Your task to perform on an android device: Search for Italian restaurants on Maps Image 0: 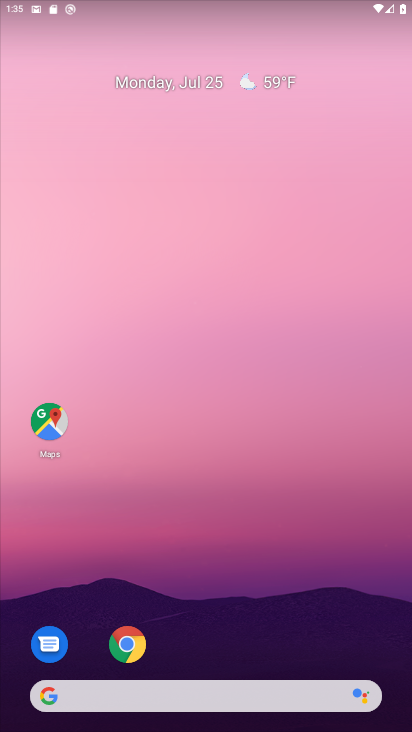
Step 0: click (46, 418)
Your task to perform on an android device: Search for Italian restaurants on Maps Image 1: 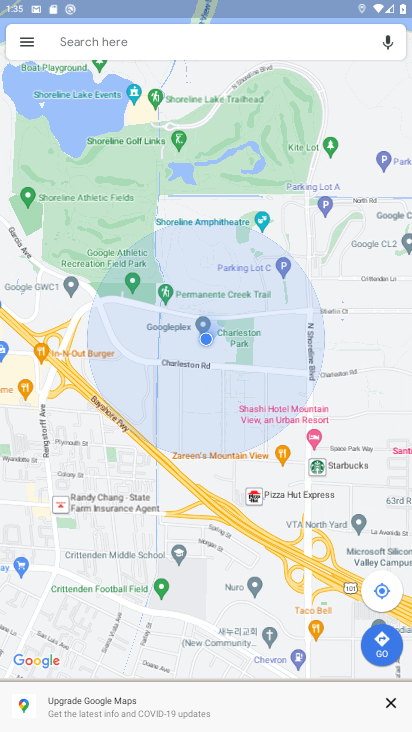
Step 1: click (128, 41)
Your task to perform on an android device: Search for Italian restaurants on Maps Image 2: 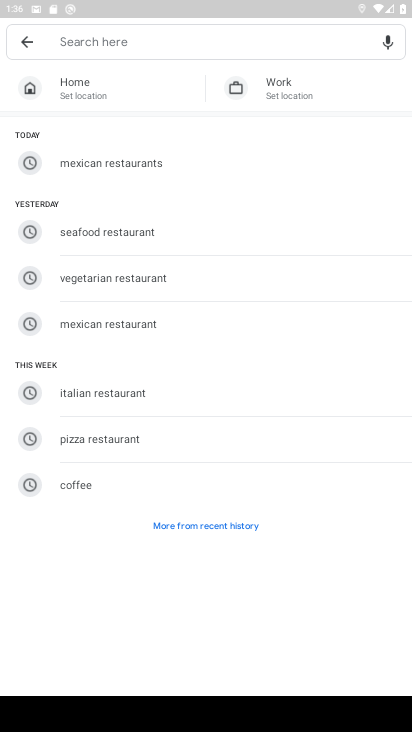
Step 2: type "ittalian"
Your task to perform on an android device: Search for Italian restaurants on Maps Image 3: 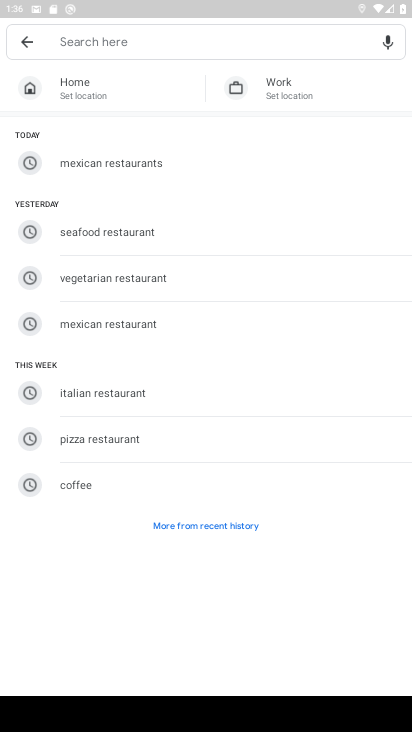
Step 3: click (118, 391)
Your task to perform on an android device: Search for Italian restaurants on Maps Image 4: 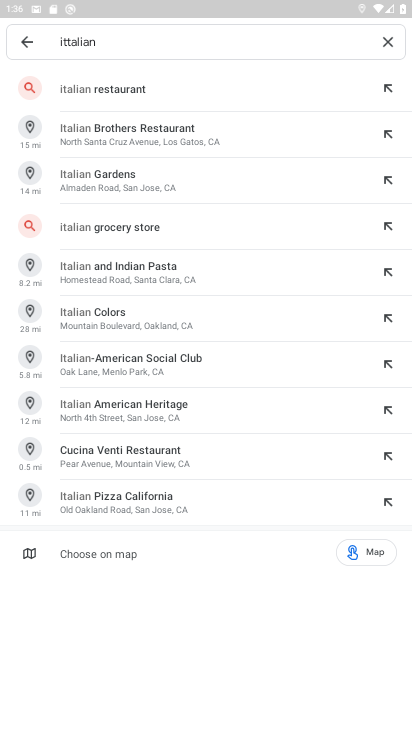
Step 4: click (127, 83)
Your task to perform on an android device: Search for Italian restaurants on Maps Image 5: 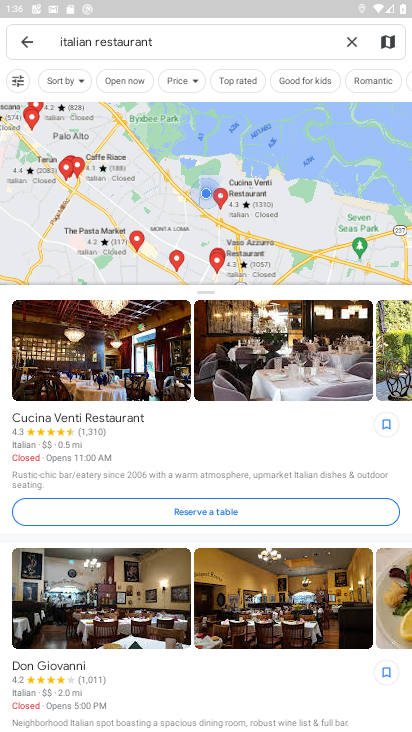
Step 5: task complete